Your task to perform on an android device: check out phone information Image 0: 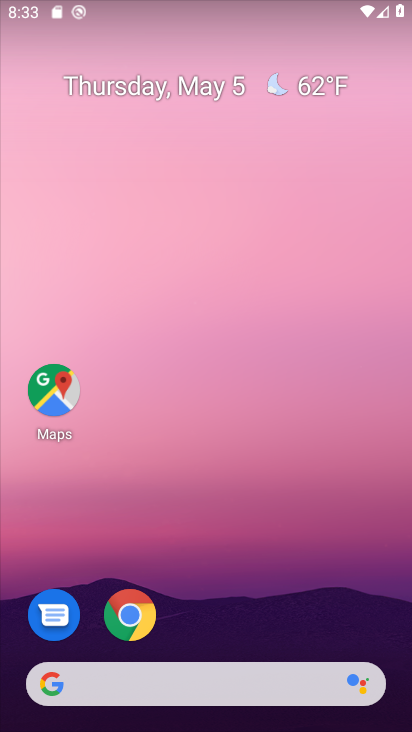
Step 0: drag from (235, 656) to (235, 311)
Your task to perform on an android device: check out phone information Image 1: 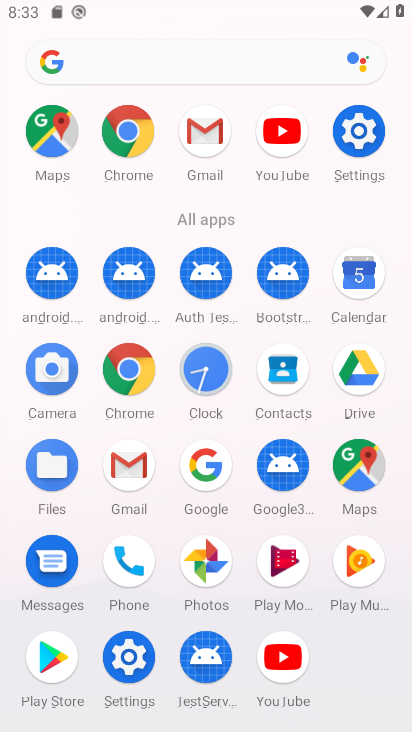
Step 1: click (134, 567)
Your task to perform on an android device: check out phone information Image 2: 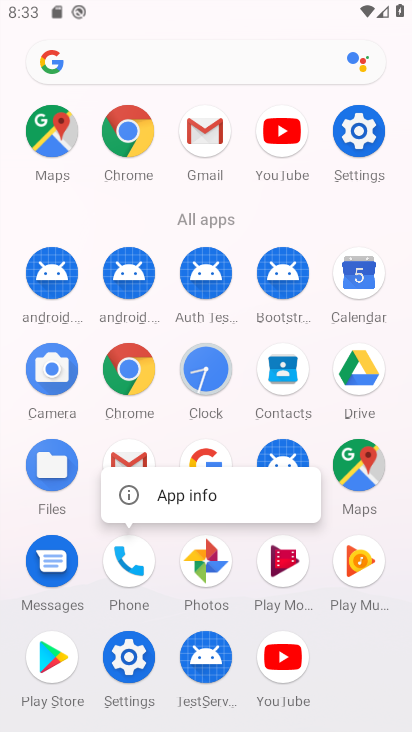
Step 2: click (190, 490)
Your task to perform on an android device: check out phone information Image 3: 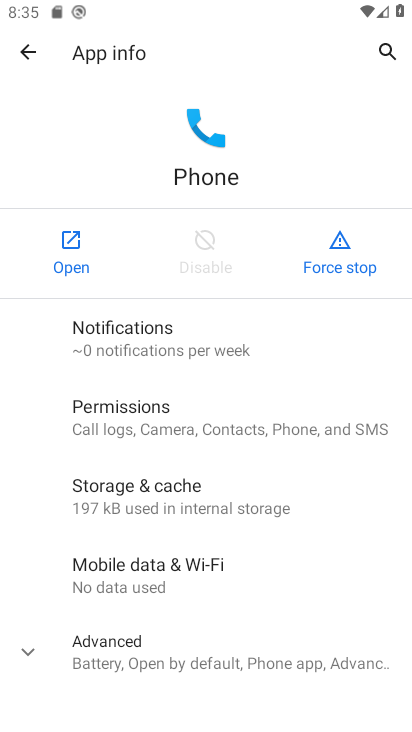
Step 3: click (149, 658)
Your task to perform on an android device: check out phone information Image 4: 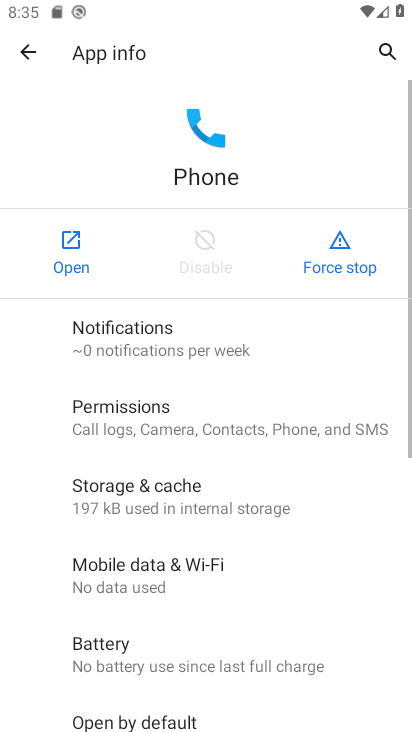
Step 4: task complete